Your task to perform on an android device: change timer sound Image 0: 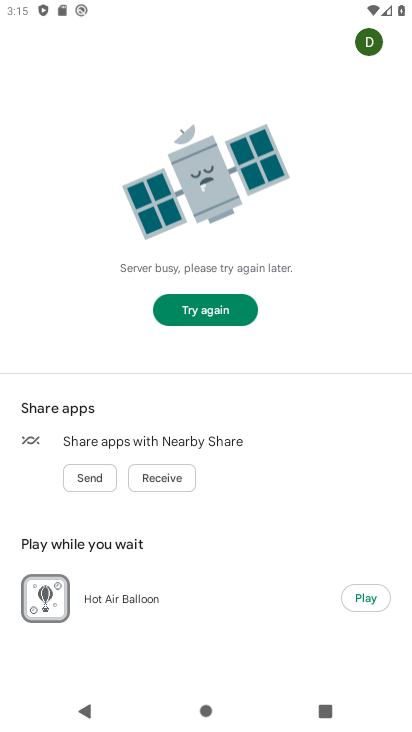
Step 0: press home button
Your task to perform on an android device: change timer sound Image 1: 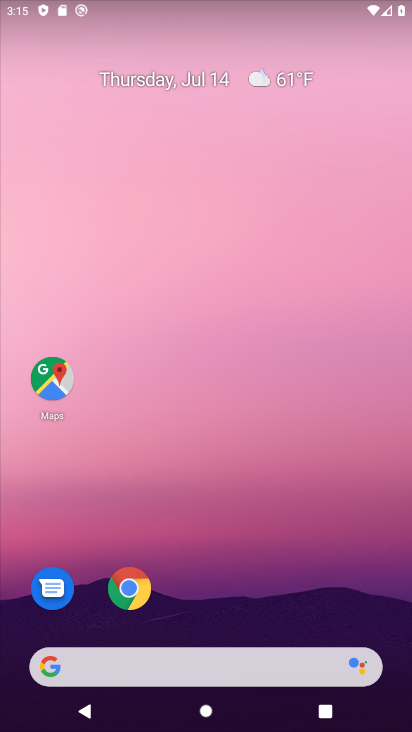
Step 1: drag from (238, 616) to (280, 175)
Your task to perform on an android device: change timer sound Image 2: 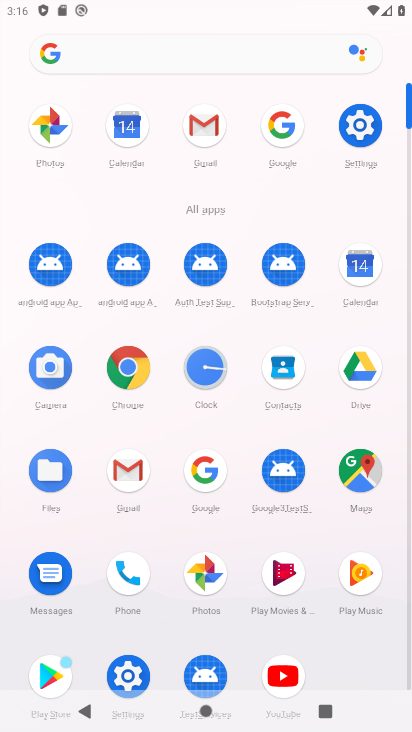
Step 2: click (204, 368)
Your task to perform on an android device: change timer sound Image 3: 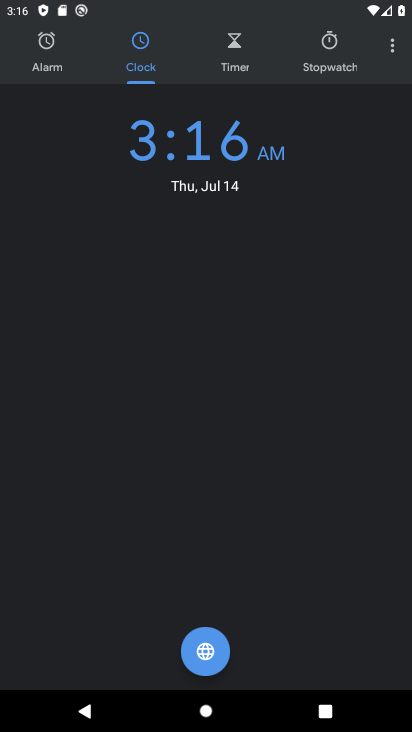
Step 3: click (391, 49)
Your task to perform on an android device: change timer sound Image 4: 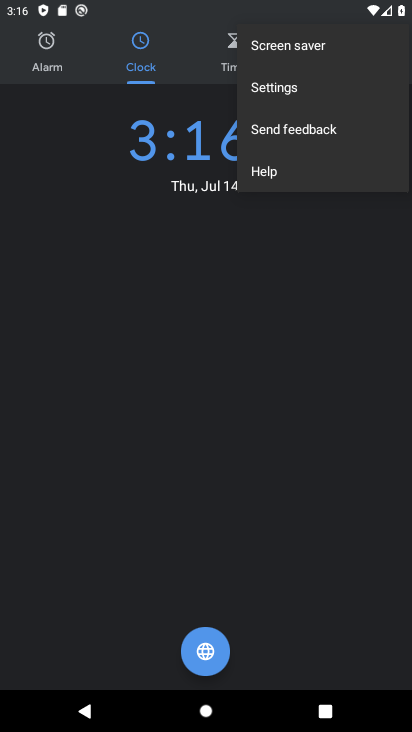
Step 4: click (279, 97)
Your task to perform on an android device: change timer sound Image 5: 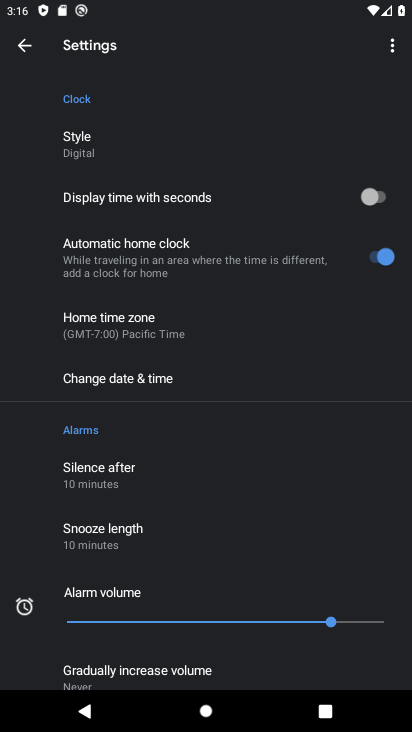
Step 5: drag from (307, 551) to (235, 96)
Your task to perform on an android device: change timer sound Image 6: 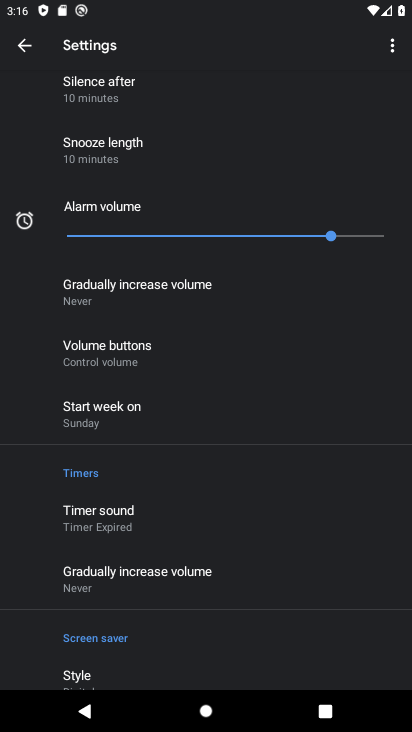
Step 6: click (116, 515)
Your task to perform on an android device: change timer sound Image 7: 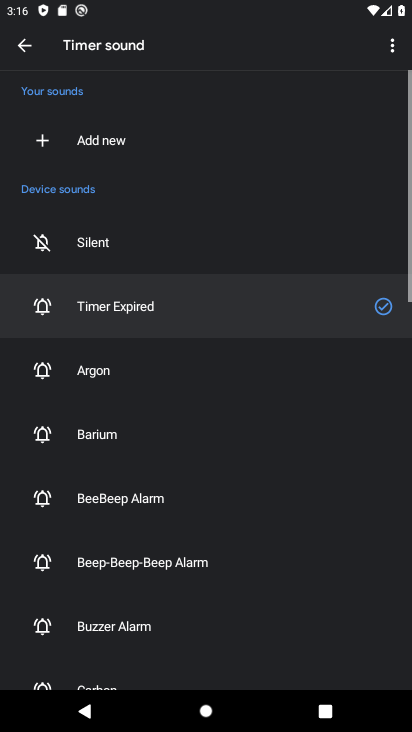
Step 7: click (76, 441)
Your task to perform on an android device: change timer sound Image 8: 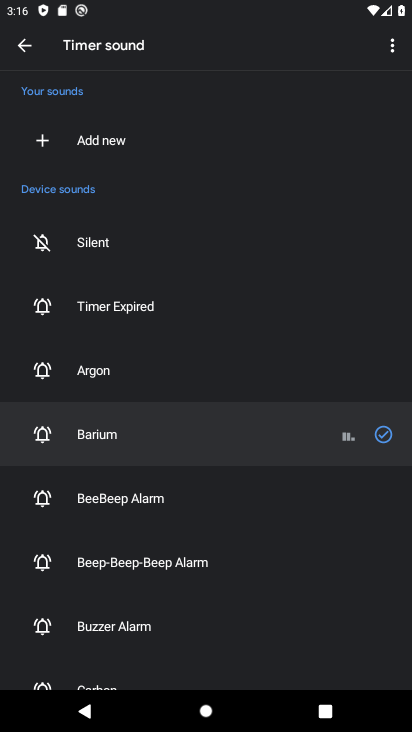
Step 8: task complete